Your task to perform on an android device: set default search engine in the chrome app Image 0: 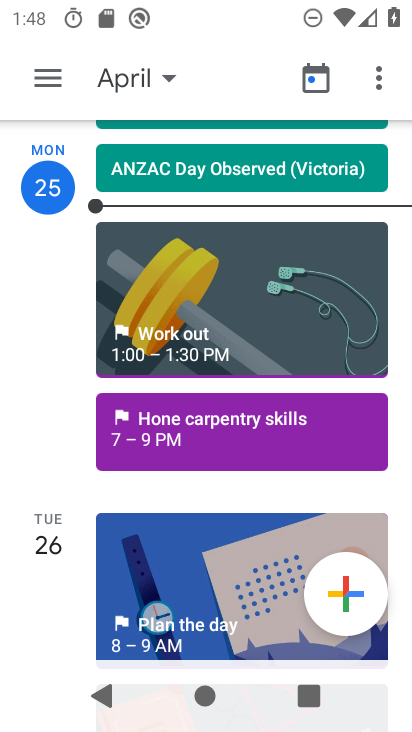
Step 0: press home button
Your task to perform on an android device: set default search engine in the chrome app Image 1: 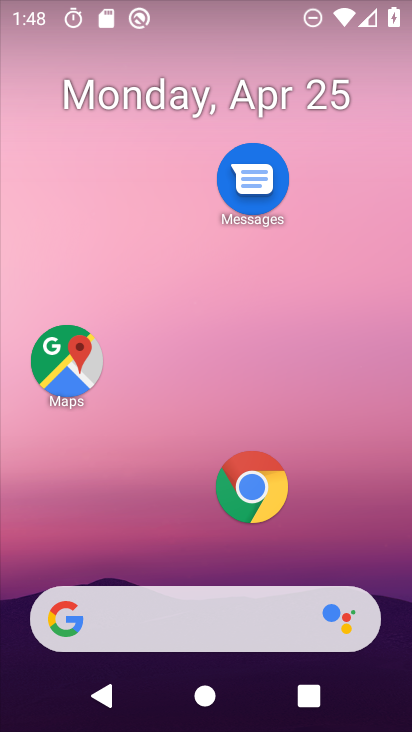
Step 1: drag from (303, 559) to (347, 24)
Your task to perform on an android device: set default search engine in the chrome app Image 2: 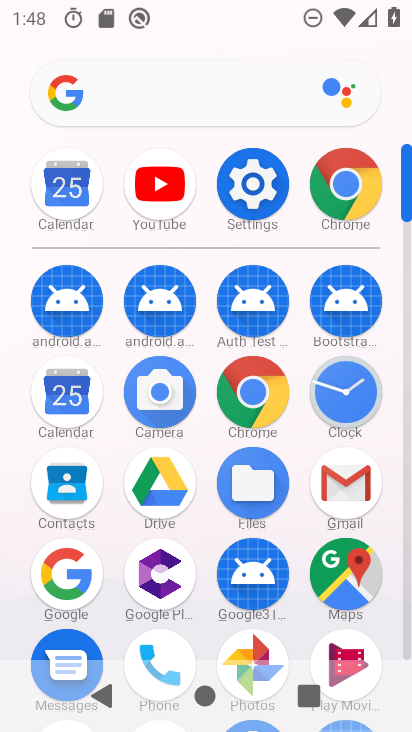
Step 2: click (260, 406)
Your task to perform on an android device: set default search engine in the chrome app Image 3: 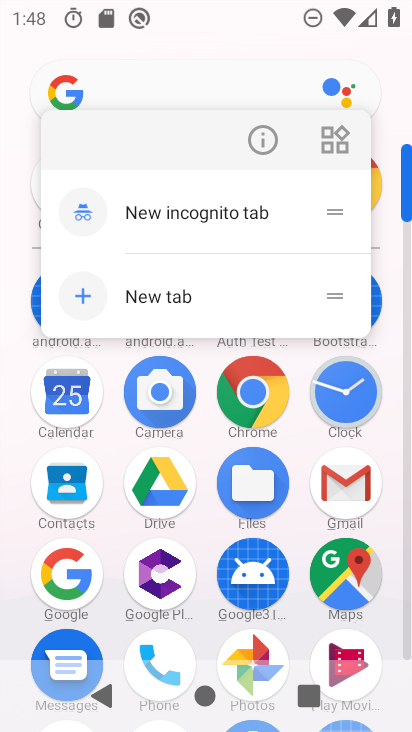
Step 3: click (265, 405)
Your task to perform on an android device: set default search engine in the chrome app Image 4: 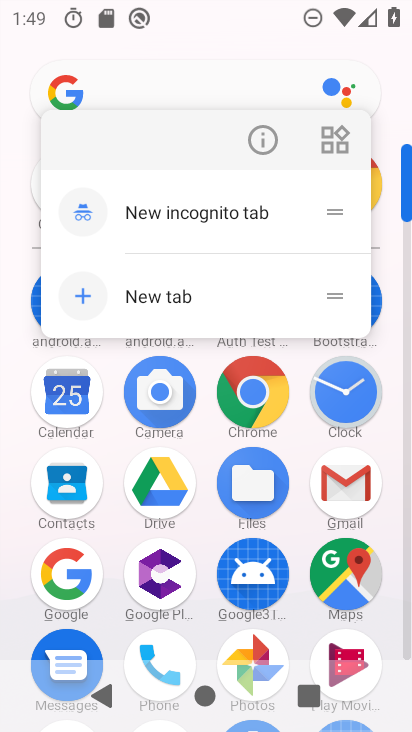
Step 4: click (272, 398)
Your task to perform on an android device: set default search engine in the chrome app Image 5: 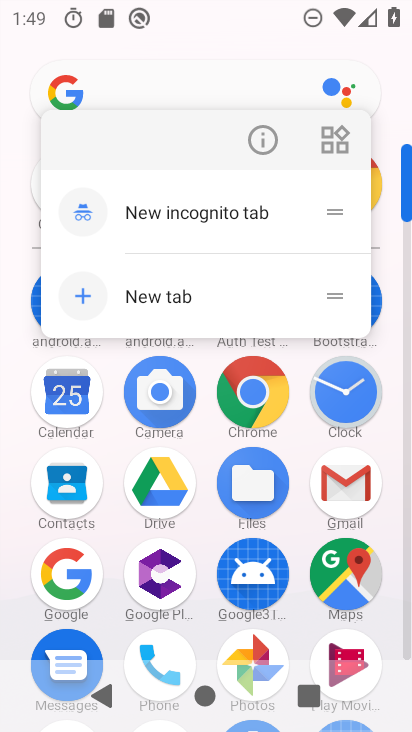
Step 5: click (273, 397)
Your task to perform on an android device: set default search engine in the chrome app Image 6: 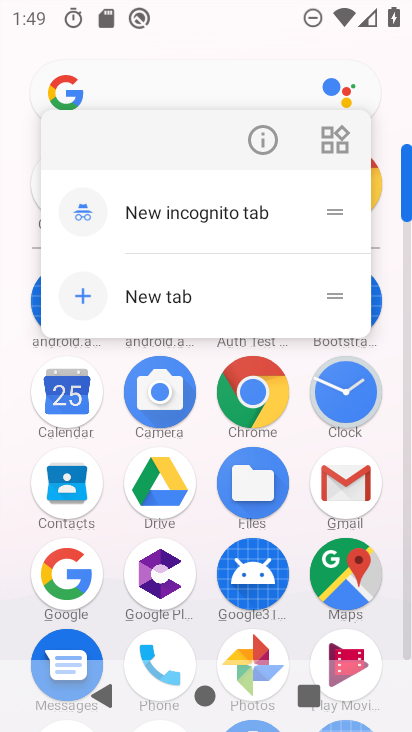
Step 6: click (263, 410)
Your task to perform on an android device: set default search engine in the chrome app Image 7: 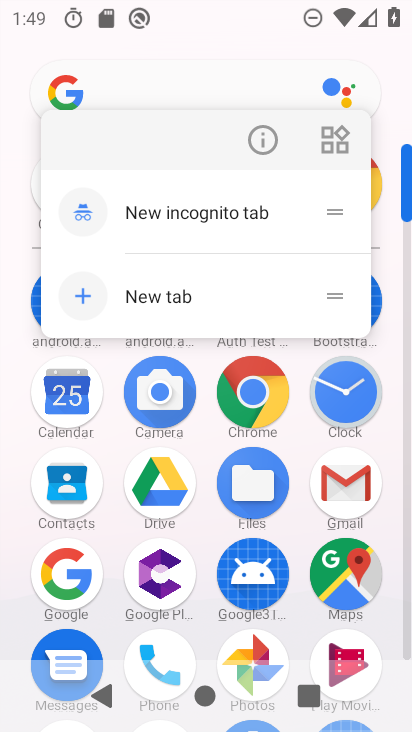
Step 7: click (271, 385)
Your task to perform on an android device: set default search engine in the chrome app Image 8: 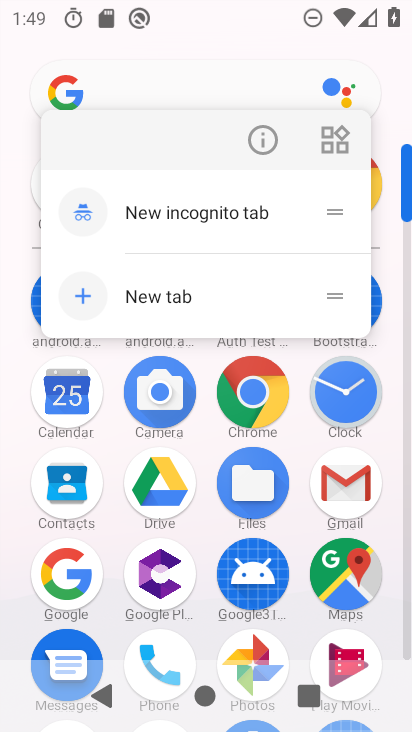
Step 8: click (244, 398)
Your task to perform on an android device: set default search engine in the chrome app Image 9: 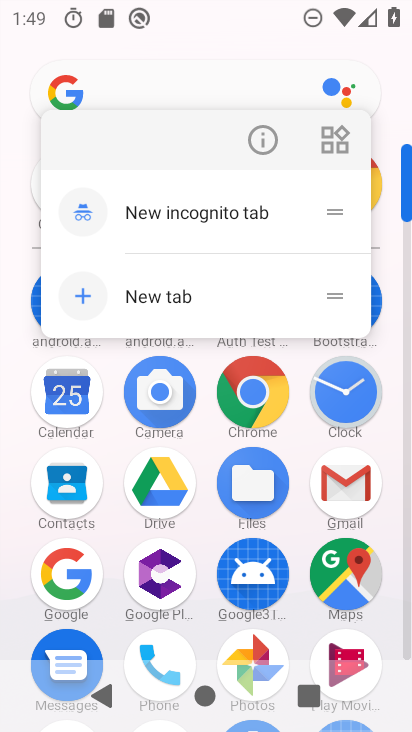
Step 9: click (244, 398)
Your task to perform on an android device: set default search engine in the chrome app Image 10: 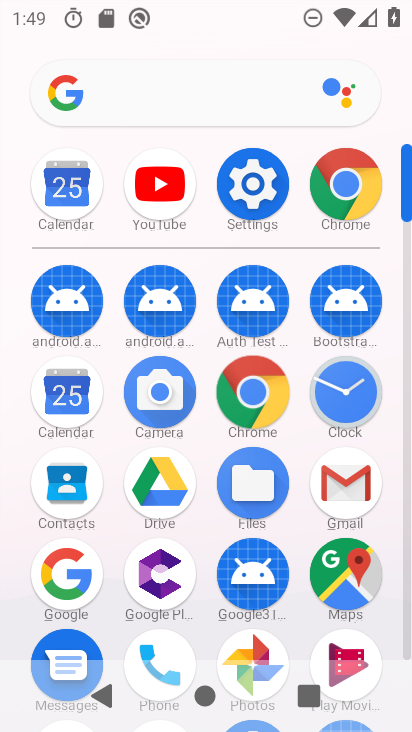
Step 10: click (244, 398)
Your task to perform on an android device: set default search engine in the chrome app Image 11: 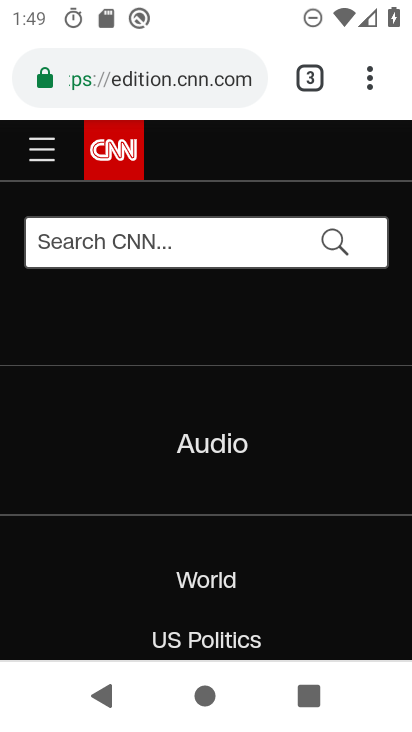
Step 11: click (367, 78)
Your task to perform on an android device: set default search engine in the chrome app Image 12: 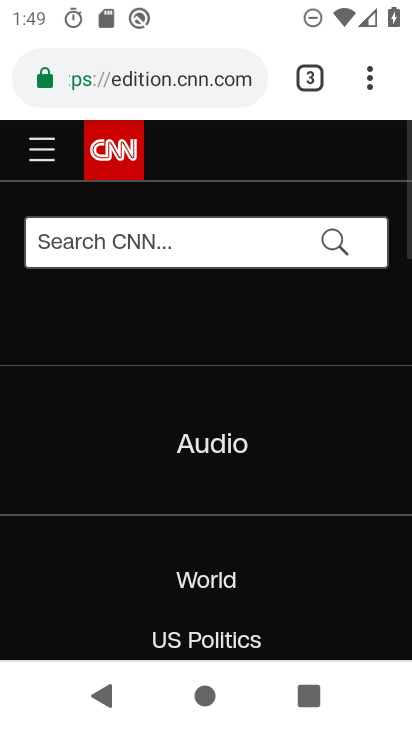
Step 12: drag from (367, 78) to (168, 550)
Your task to perform on an android device: set default search engine in the chrome app Image 13: 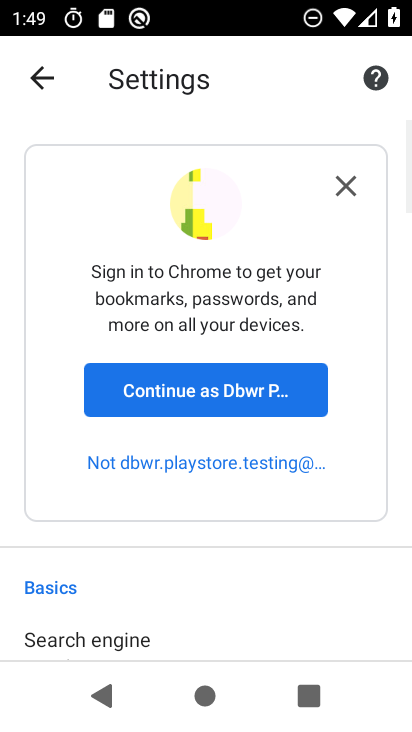
Step 13: click (149, 628)
Your task to perform on an android device: set default search engine in the chrome app Image 14: 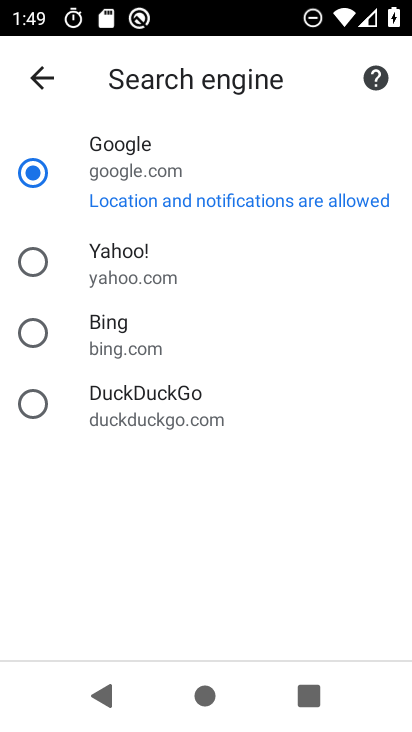
Step 14: task complete